Your task to perform on an android device: Show me the alarms in the clock app Image 0: 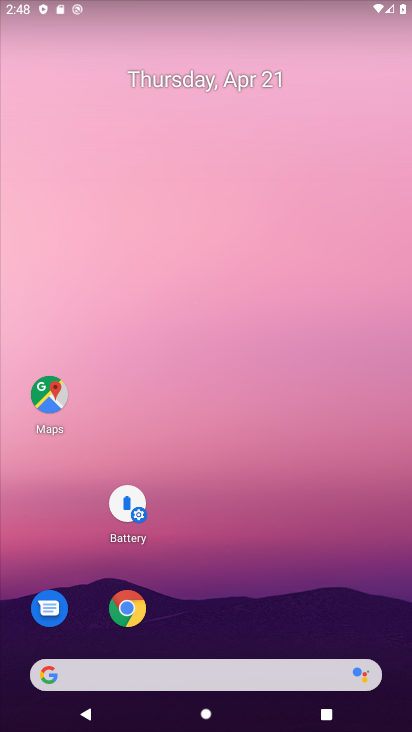
Step 0: drag from (297, 627) to (278, 105)
Your task to perform on an android device: Show me the alarms in the clock app Image 1: 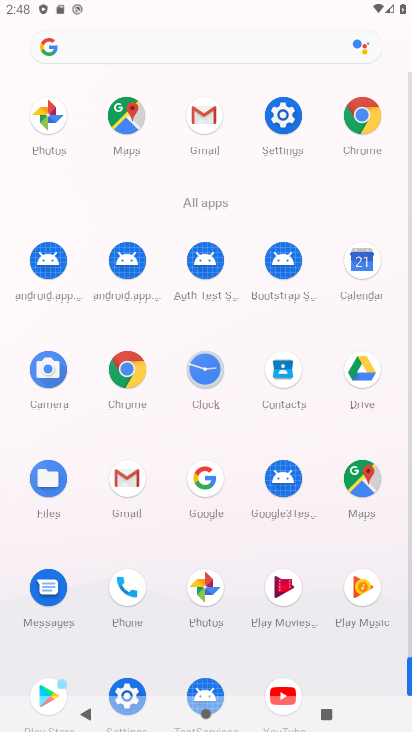
Step 1: click (281, 109)
Your task to perform on an android device: Show me the alarms in the clock app Image 2: 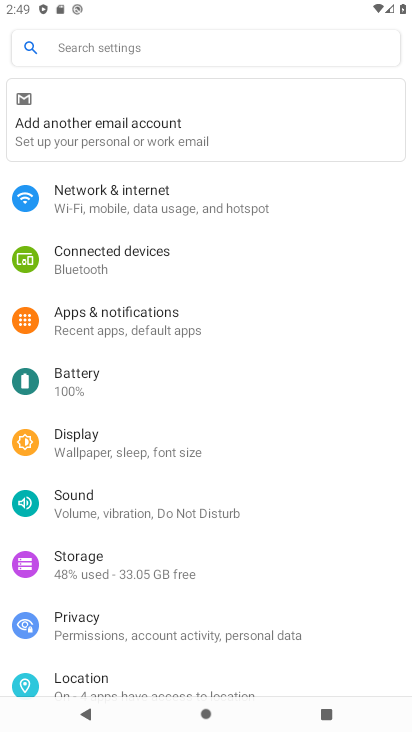
Step 2: press home button
Your task to perform on an android device: Show me the alarms in the clock app Image 3: 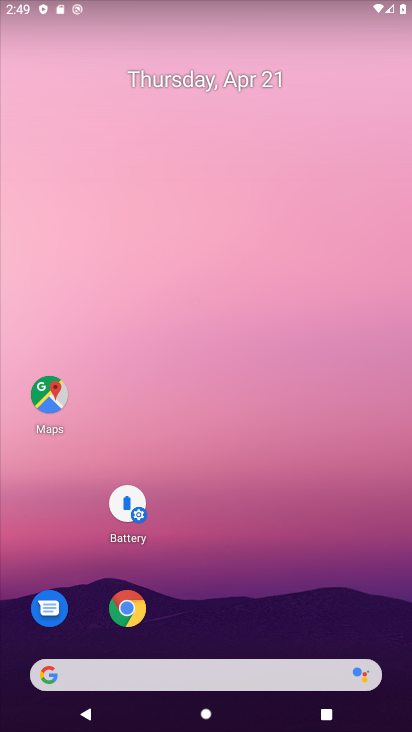
Step 3: drag from (302, 591) to (267, 94)
Your task to perform on an android device: Show me the alarms in the clock app Image 4: 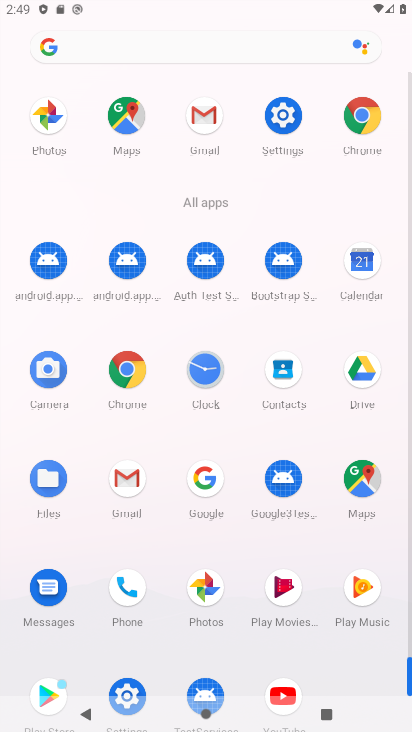
Step 4: click (218, 379)
Your task to perform on an android device: Show me the alarms in the clock app Image 5: 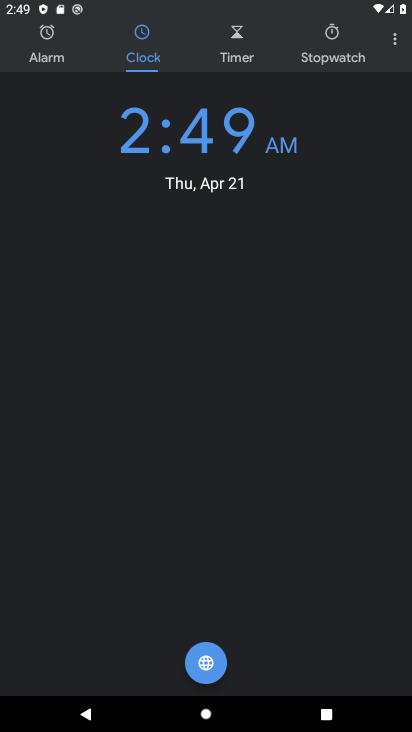
Step 5: click (27, 63)
Your task to perform on an android device: Show me the alarms in the clock app Image 6: 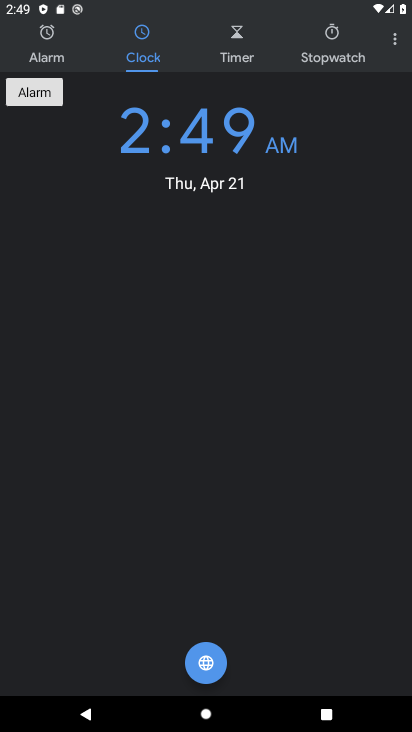
Step 6: click (43, 50)
Your task to perform on an android device: Show me the alarms in the clock app Image 7: 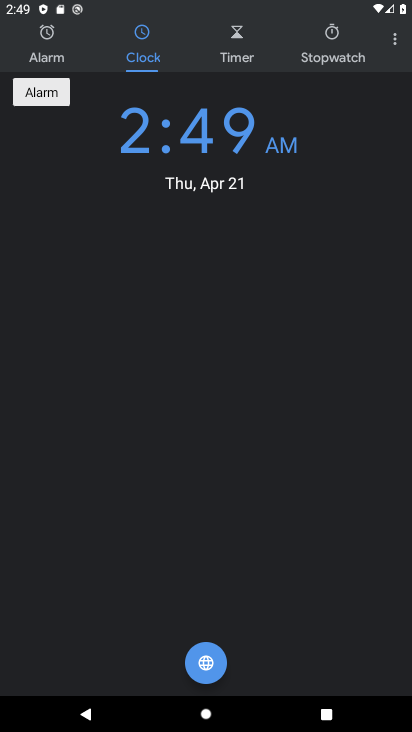
Step 7: click (43, 49)
Your task to perform on an android device: Show me the alarms in the clock app Image 8: 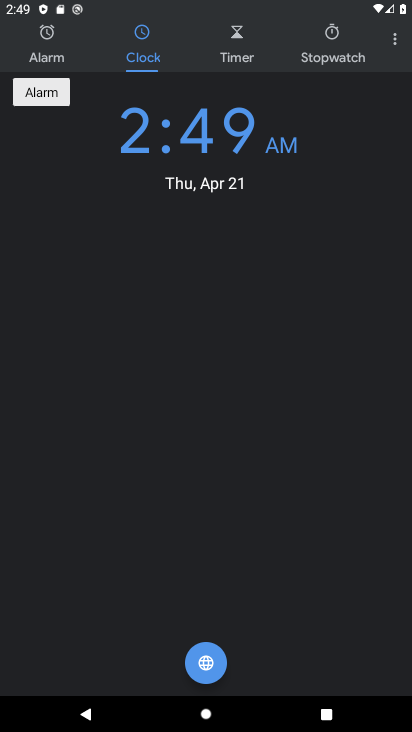
Step 8: click (43, 48)
Your task to perform on an android device: Show me the alarms in the clock app Image 9: 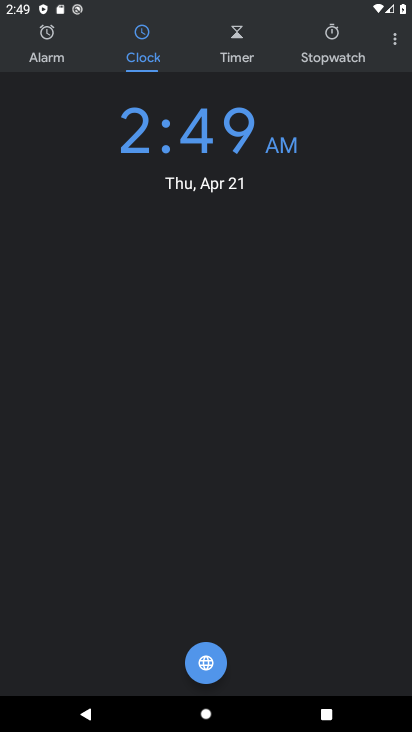
Step 9: click (45, 53)
Your task to perform on an android device: Show me the alarms in the clock app Image 10: 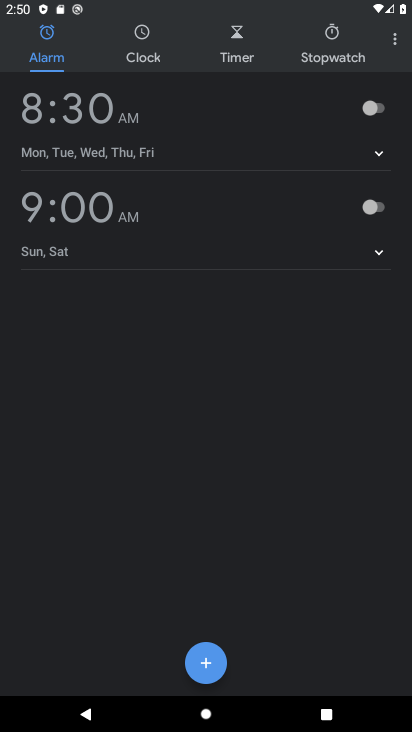
Step 10: click (64, 121)
Your task to perform on an android device: Show me the alarms in the clock app Image 11: 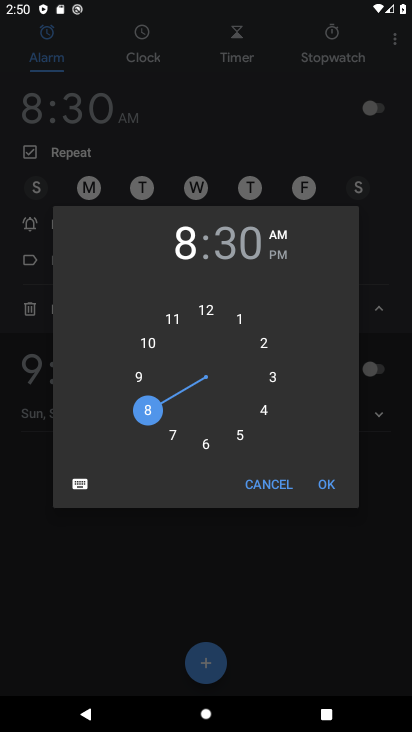
Step 11: task complete